Your task to perform on an android device: open app "Facebook Messenger" (install if not already installed), go to login, and select forgot password Image 0: 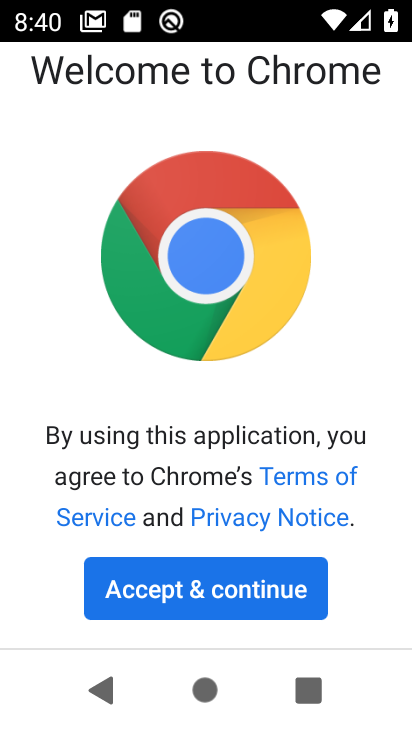
Step 0: press home button
Your task to perform on an android device: open app "Facebook Messenger" (install if not already installed), go to login, and select forgot password Image 1: 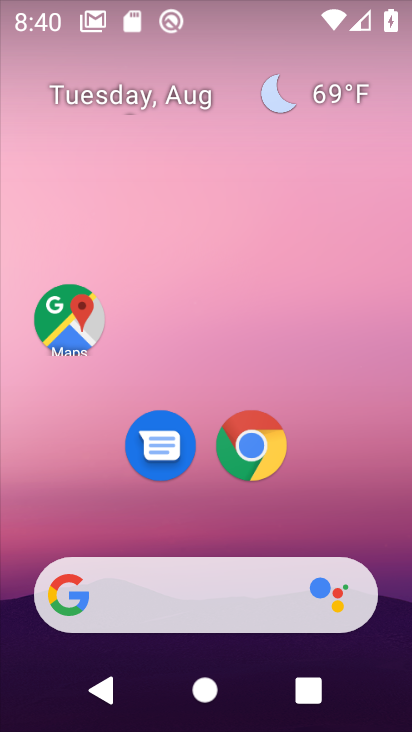
Step 1: drag from (223, 538) to (192, 17)
Your task to perform on an android device: open app "Facebook Messenger" (install if not already installed), go to login, and select forgot password Image 2: 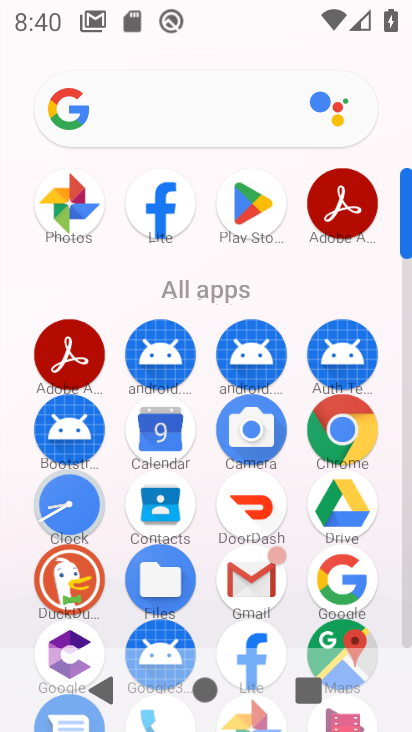
Step 2: click (240, 210)
Your task to perform on an android device: open app "Facebook Messenger" (install if not already installed), go to login, and select forgot password Image 3: 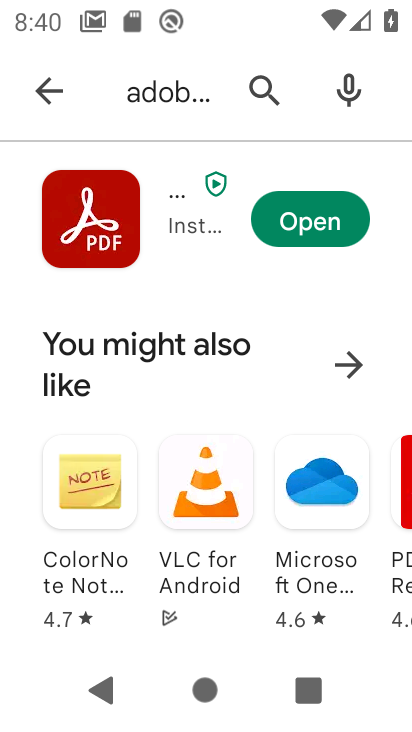
Step 3: click (53, 92)
Your task to perform on an android device: open app "Facebook Messenger" (install if not already installed), go to login, and select forgot password Image 4: 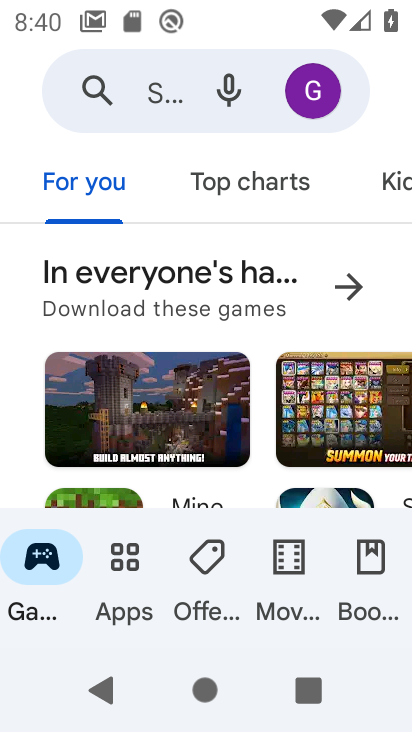
Step 4: click (134, 75)
Your task to perform on an android device: open app "Facebook Messenger" (install if not already installed), go to login, and select forgot password Image 5: 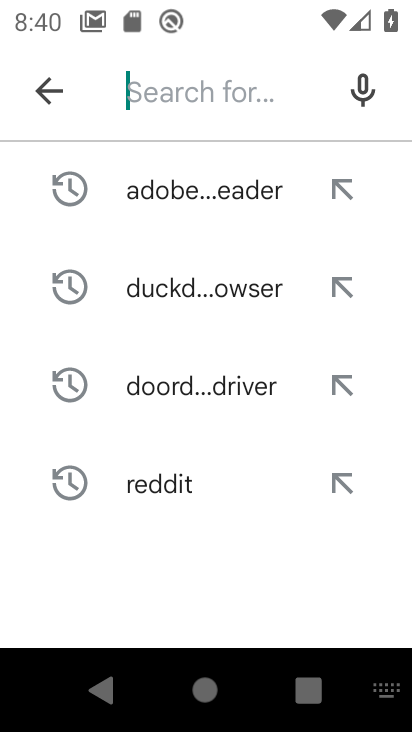
Step 5: type "Facebook Messenger"
Your task to perform on an android device: open app "Facebook Messenger" (install if not already installed), go to login, and select forgot password Image 6: 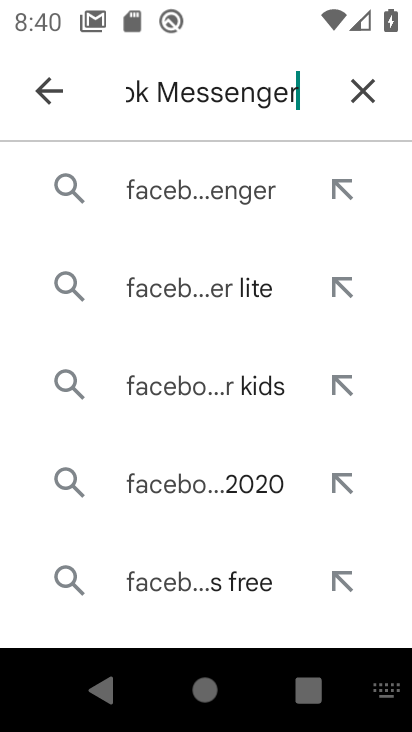
Step 6: click (180, 205)
Your task to perform on an android device: open app "Facebook Messenger" (install if not already installed), go to login, and select forgot password Image 7: 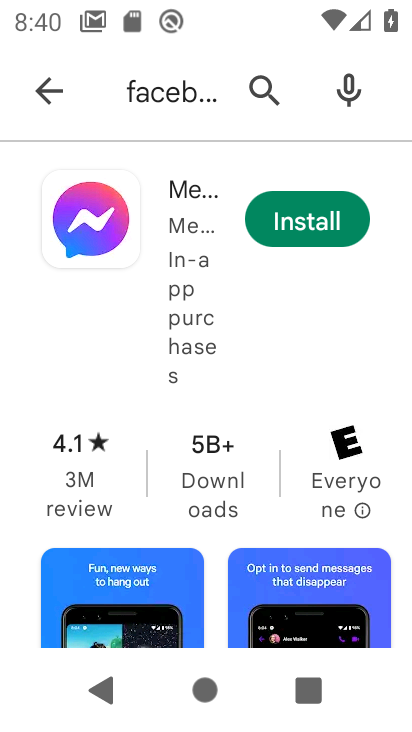
Step 7: click (180, 205)
Your task to perform on an android device: open app "Facebook Messenger" (install if not already installed), go to login, and select forgot password Image 8: 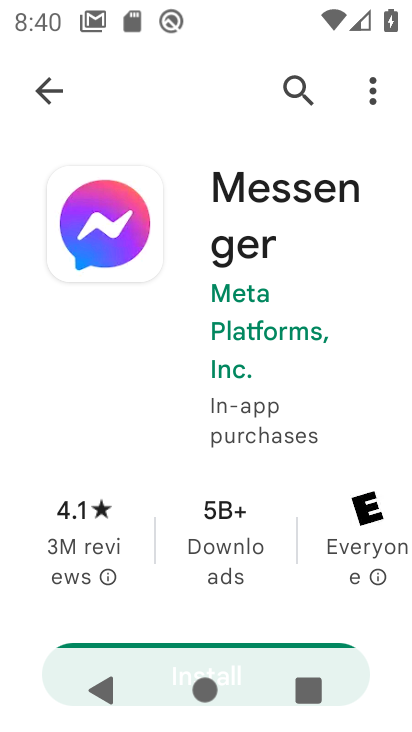
Step 8: drag from (161, 573) to (152, 315)
Your task to perform on an android device: open app "Facebook Messenger" (install if not already installed), go to login, and select forgot password Image 9: 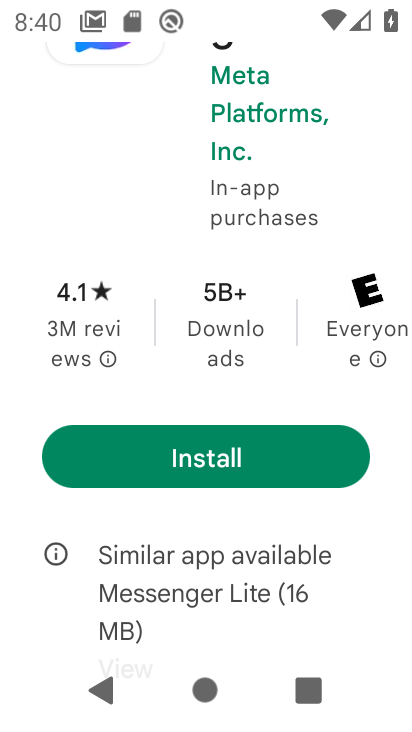
Step 9: click (174, 468)
Your task to perform on an android device: open app "Facebook Messenger" (install if not already installed), go to login, and select forgot password Image 10: 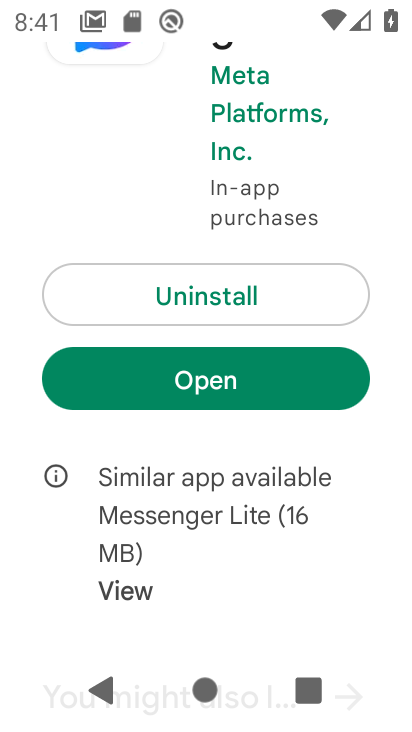
Step 10: click (224, 400)
Your task to perform on an android device: open app "Facebook Messenger" (install if not already installed), go to login, and select forgot password Image 11: 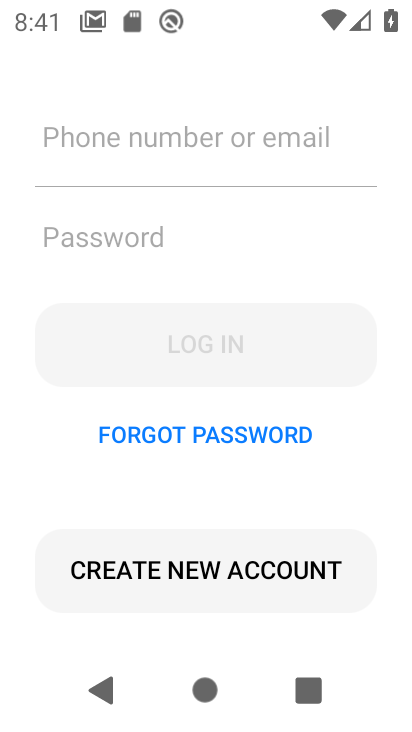
Step 11: click (224, 436)
Your task to perform on an android device: open app "Facebook Messenger" (install if not already installed), go to login, and select forgot password Image 12: 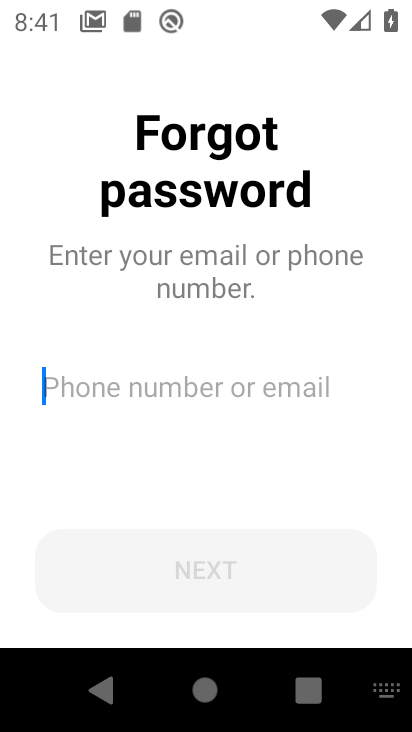
Step 12: task complete